Your task to perform on an android device: turn smart compose on in the gmail app Image 0: 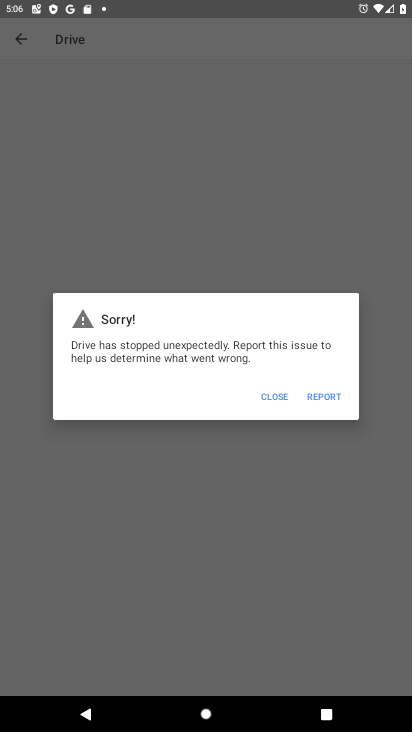
Step 0: press home button
Your task to perform on an android device: turn smart compose on in the gmail app Image 1: 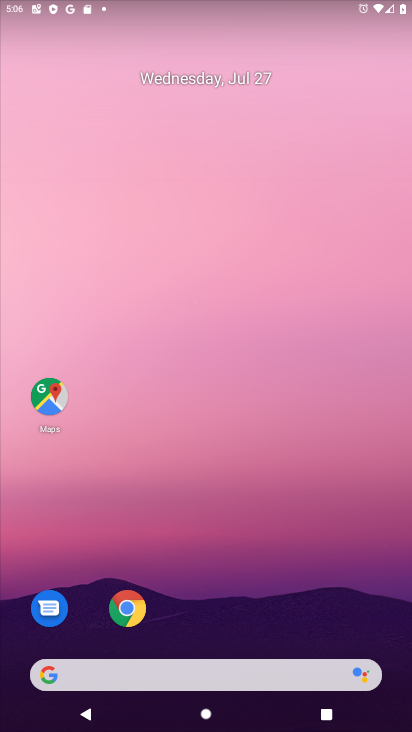
Step 1: drag from (214, 615) to (142, 97)
Your task to perform on an android device: turn smart compose on in the gmail app Image 2: 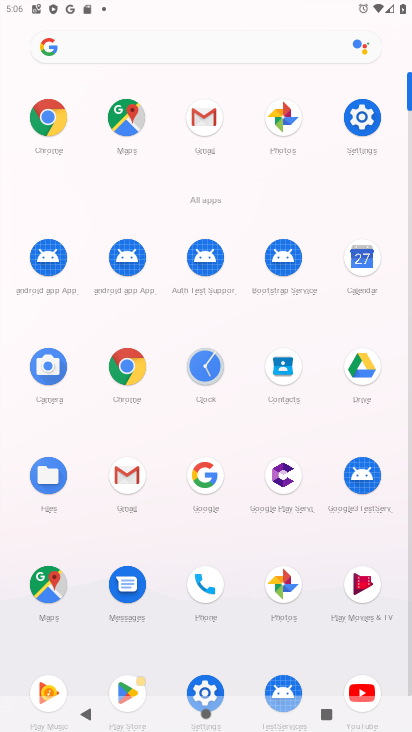
Step 2: click (132, 479)
Your task to perform on an android device: turn smart compose on in the gmail app Image 3: 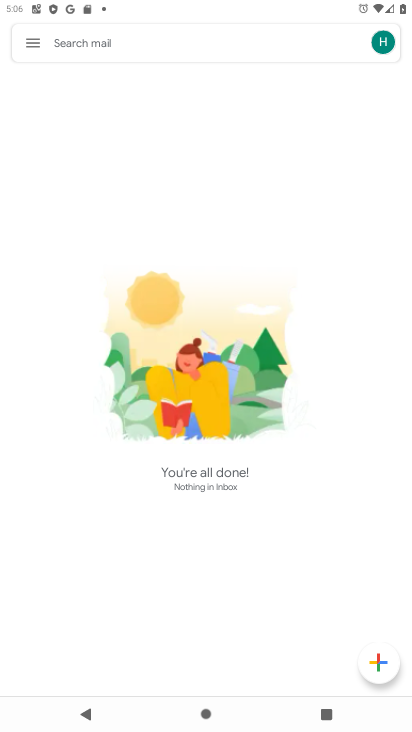
Step 3: click (22, 36)
Your task to perform on an android device: turn smart compose on in the gmail app Image 4: 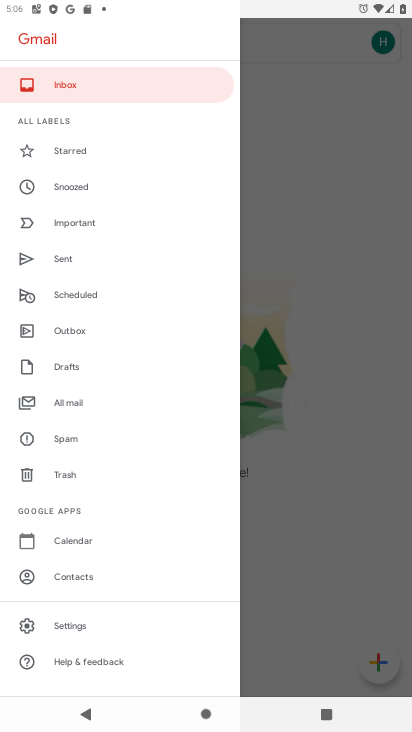
Step 4: click (64, 638)
Your task to perform on an android device: turn smart compose on in the gmail app Image 5: 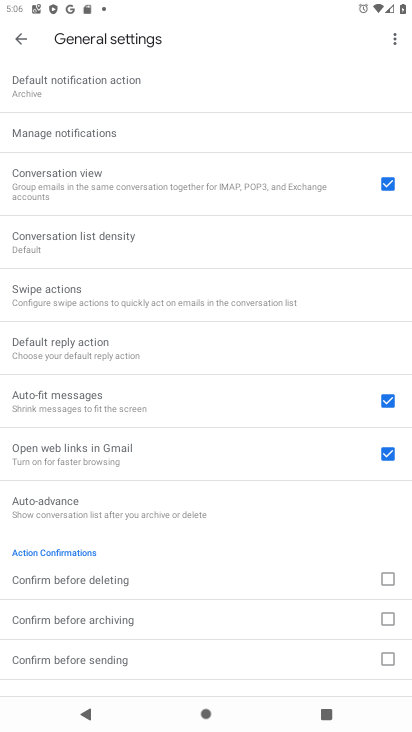
Step 5: click (20, 38)
Your task to perform on an android device: turn smart compose on in the gmail app Image 6: 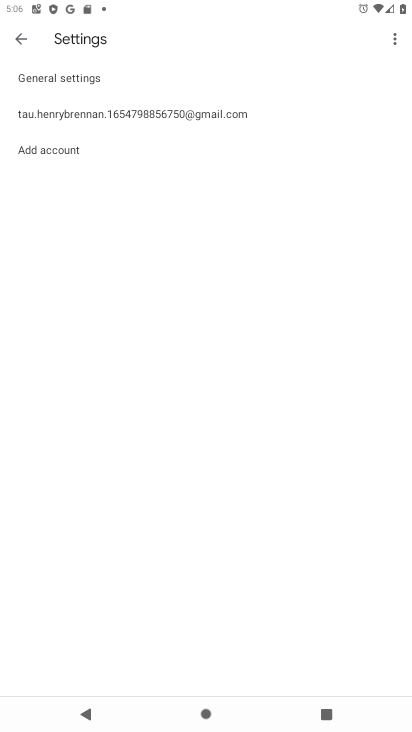
Step 6: click (43, 113)
Your task to perform on an android device: turn smart compose on in the gmail app Image 7: 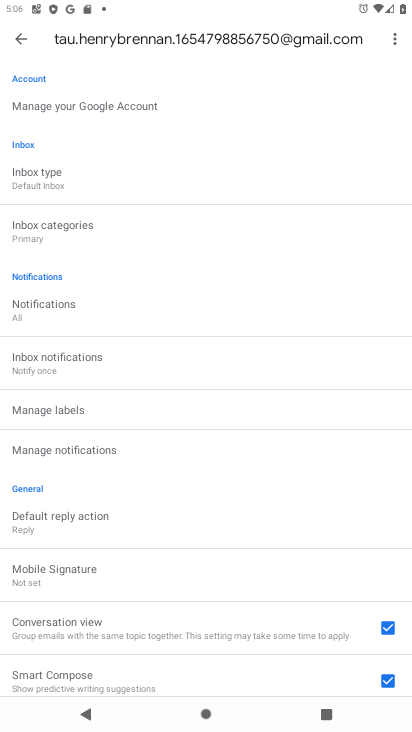
Step 7: task complete